Your task to perform on an android device: Open settings on Google Maps Image 0: 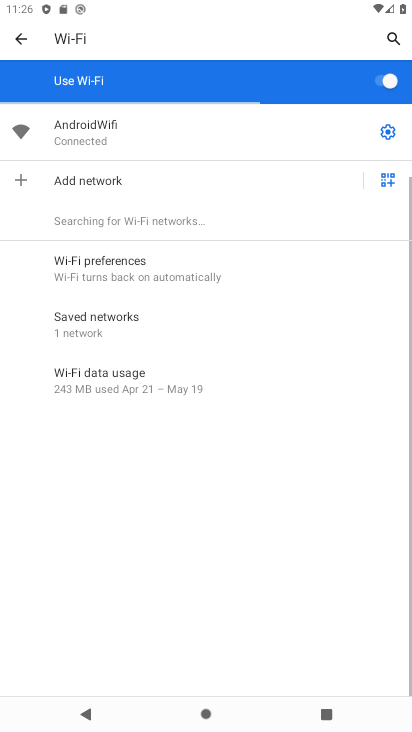
Step 0: press home button
Your task to perform on an android device: Open settings on Google Maps Image 1: 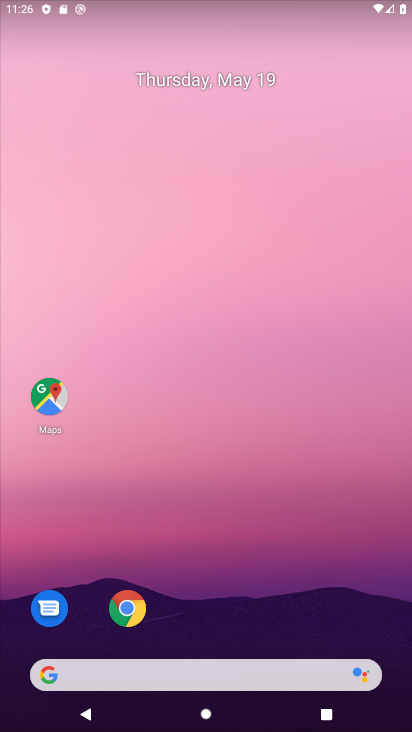
Step 1: drag from (386, 582) to (386, 207)
Your task to perform on an android device: Open settings on Google Maps Image 2: 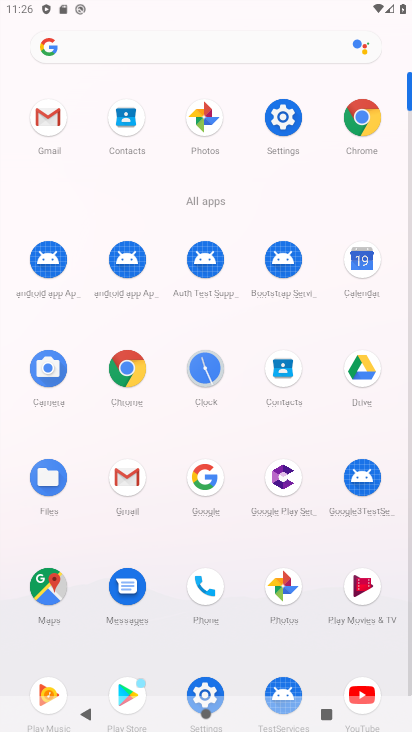
Step 2: click (43, 601)
Your task to perform on an android device: Open settings on Google Maps Image 3: 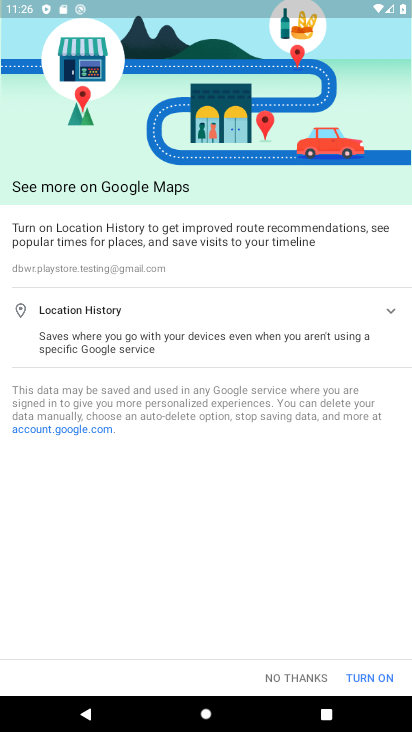
Step 3: click (313, 682)
Your task to perform on an android device: Open settings on Google Maps Image 4: 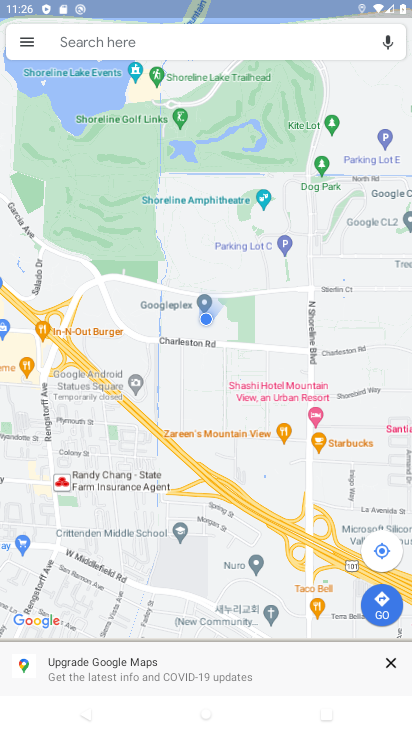
Step 4: click (11, 32)
Your task to perform on an android device: Open settings on Google Maps Image 5: 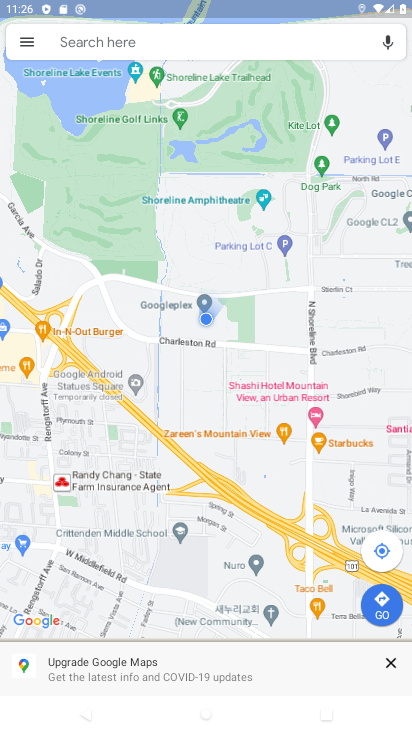
Step 5: click (34, 42)
Your task to perform on an android device: Open settings on Google Maps Image 6: 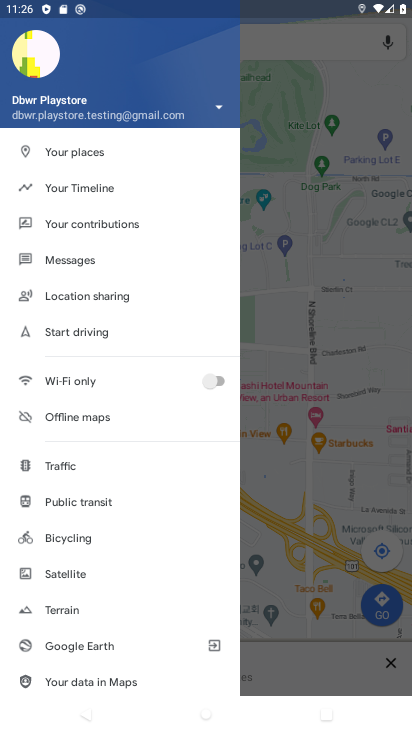
Step 6: drag from (172, 568) to (173, 447)
Your task to perform on an android device: Open settings on Google Maps Image 7: 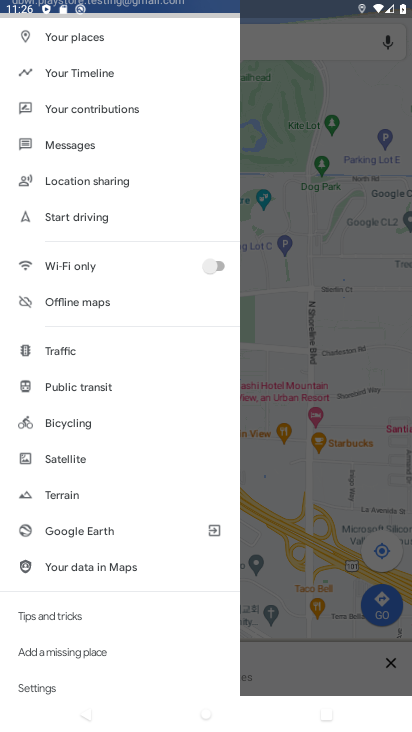
Step 7: drag from (162, 591) to (148, 454)
Your task to perform on an android device: Open settings on Google Maps Image 8: 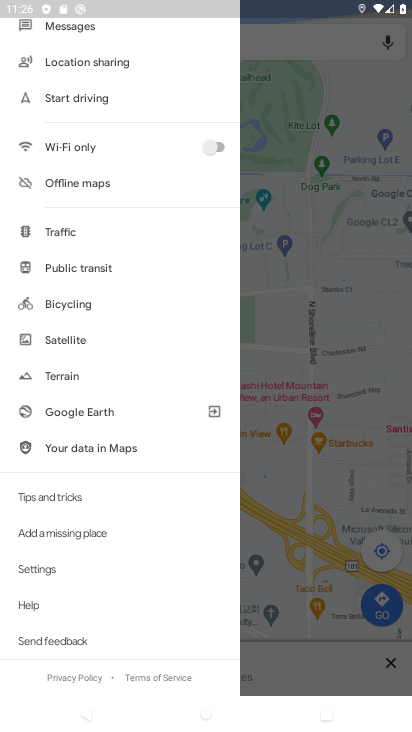
Step 8: click (46, 576)
Your task to perform on an android device: Open settings on Google Maps Image 9: 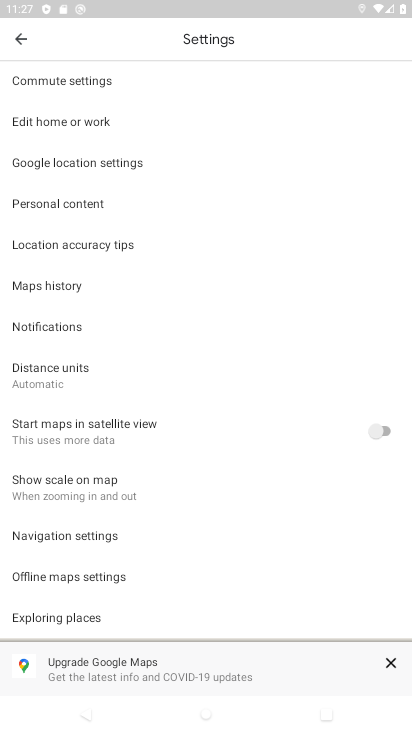
Step 9: task complete